Your task to perform on an android device: turn on translation in the chrome app Image 0: 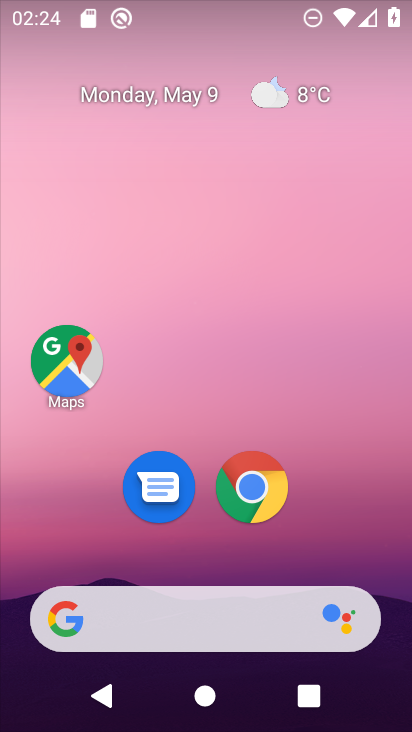
Step 0: click (255, 473)
Your task to perform on an android device: turn on translation in the chrome app Image 1: 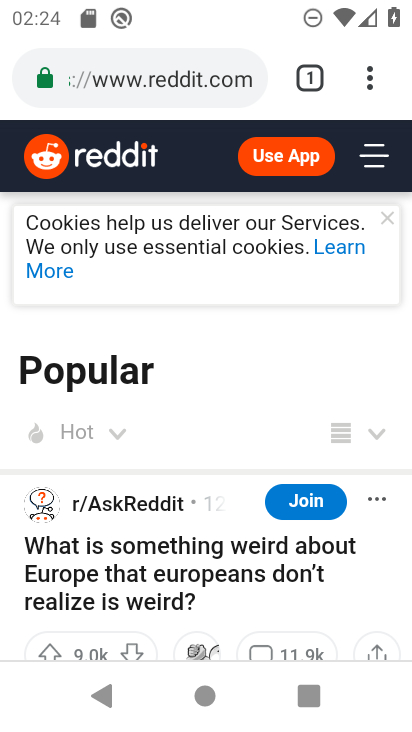
Step 1: click (364, 85)
Your task to perform on an android device: turn on translation in the chrome app Image 2: 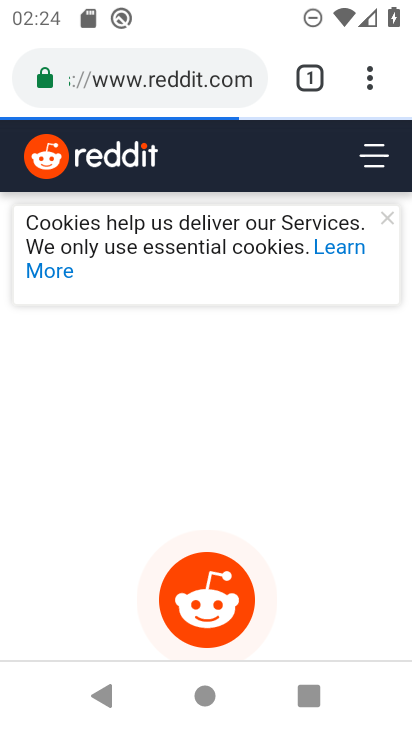
Step 2: click (382, 83)
Your task to perform on an android device: turn on translation in the chrome app Image 3: 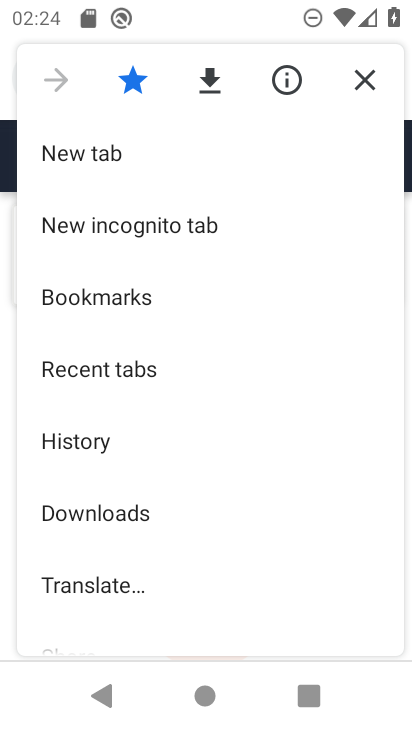
Step 3: drag from (132, 578) to (135, 157)
Your task to perform on an android device: turn on translation in the chrome app Image 4: 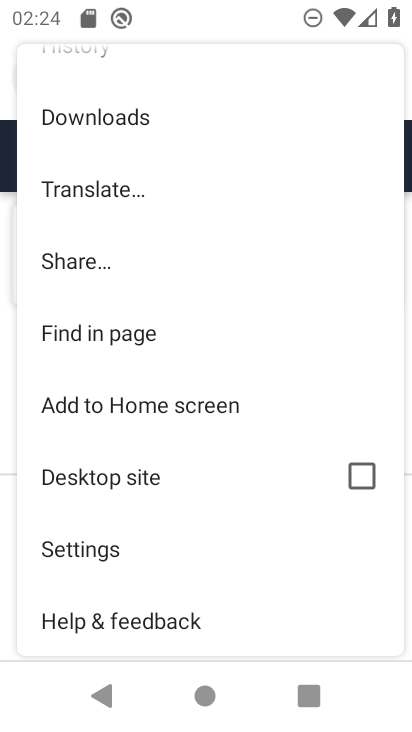
Step 4: click (108, 554)
Your task to perform on an android device: turn on translation in the chrome app Image 5: 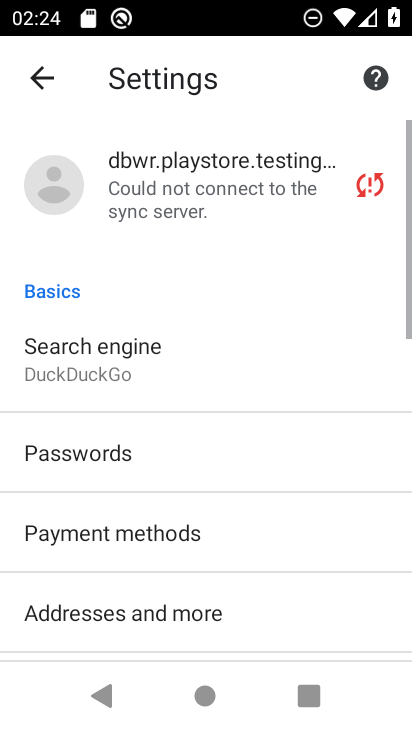
Step 5: drag from (221, 583) to (194, 75)
Your task to perform on an android device: turn on translation in the chrome app Image 6: 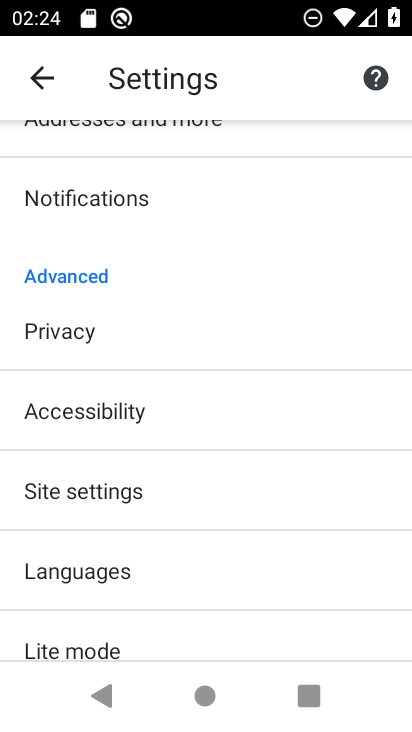
Step 6: click (84, 571)
Your task to perform on an android device: turn on translation in the chrome app Image 7: 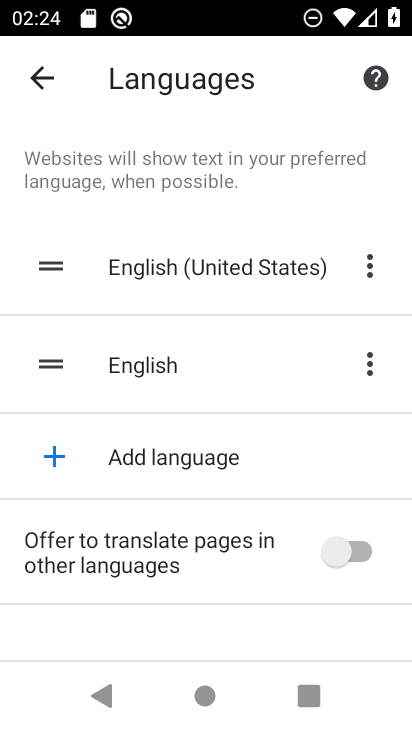
Step 7: click (350, 542)
Your task to perform on an android device: turn on translation in the chrome app Image 8: 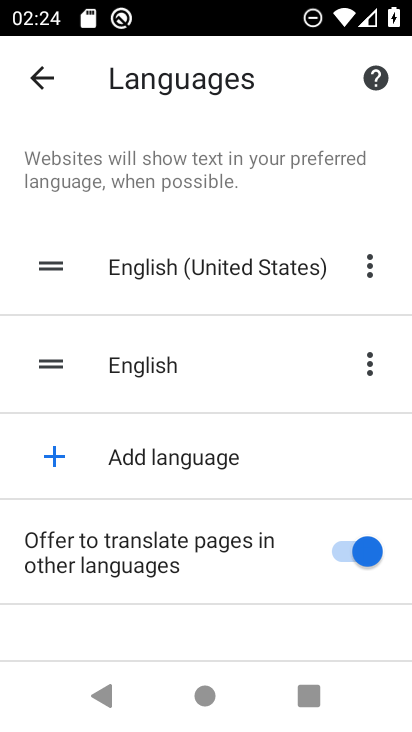
Step 8: task complete